Your task to perform on an android device: turn vacation reply on in the gmail app Image 0: 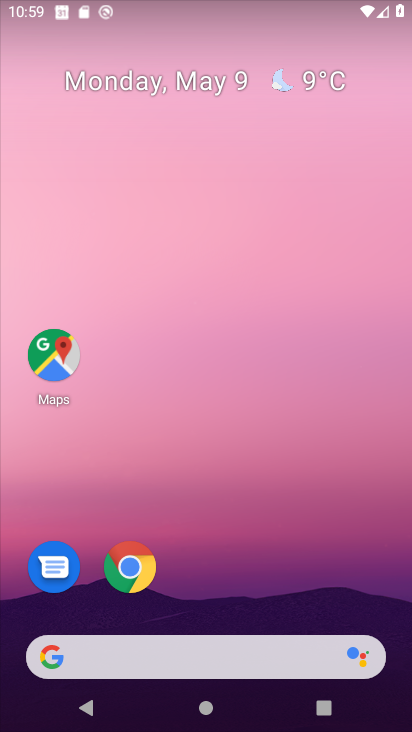
Step 0: drag from (222, 610) to (256, 6)
Your task to perform on an android device: turn vacation reply on in the gmail app Image 1: 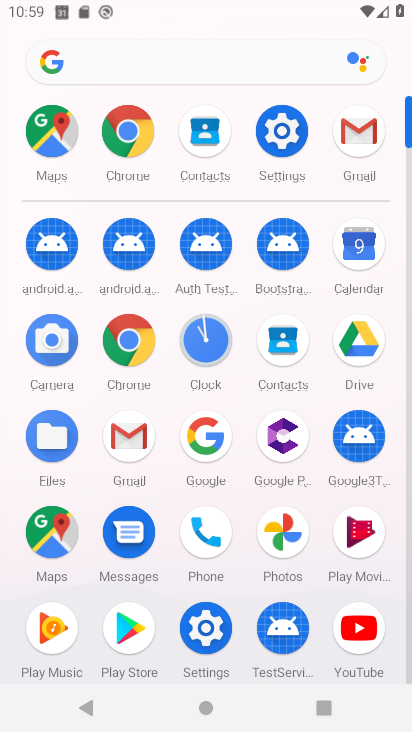
Step 1: click (356, 128)
Your task to perform on an android device: turn vacation reply on in the gmail app Image 2: 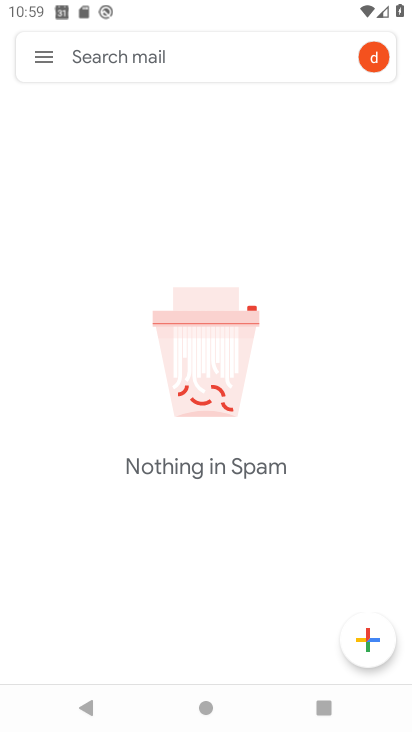
Step 2: click (39, 57)
Your task to perform on an android device: turn vacation reply on in the gmail app Image 3: 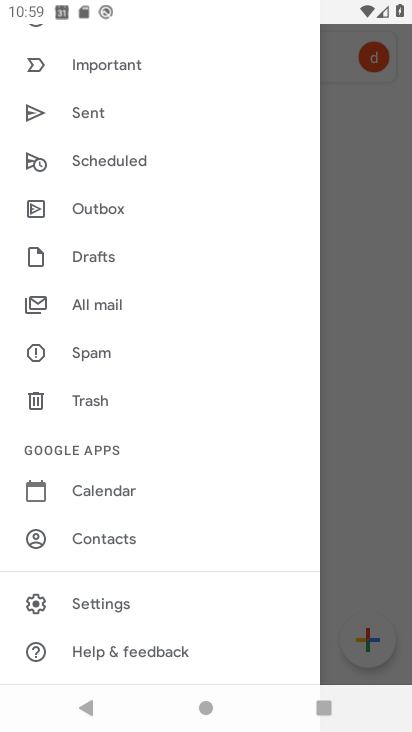
Step 3: click (140, 600)
Your task to perform on an android device: turn vacation reply on in the gmail app Image 4: 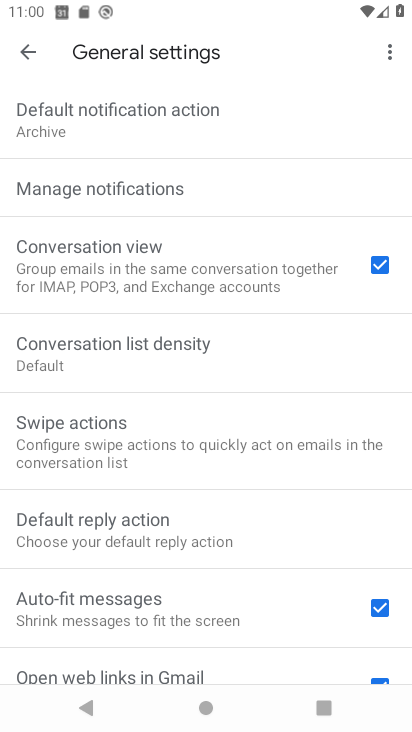
Step 4: click (23, 49)
Your task to perform on an android device: turn vacation reply on in the gmail app Image 5: 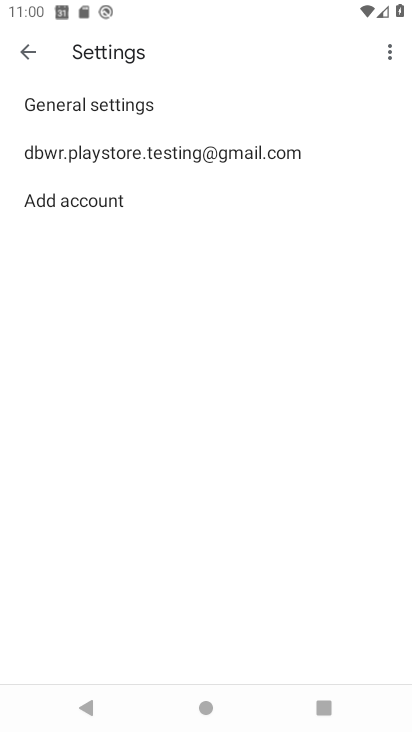
Step 5: click (163, 144)
Your task to perform on an android device: turn vacation reply on in the gmail app Image 6: 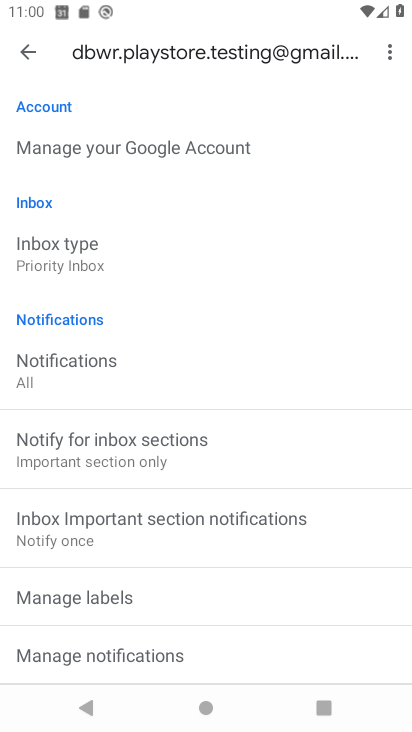
Step 6: drag from (187, 618) to (226, 143)
Your task to perform on an android device: turn vacation reply on in the gmail app Image 7: 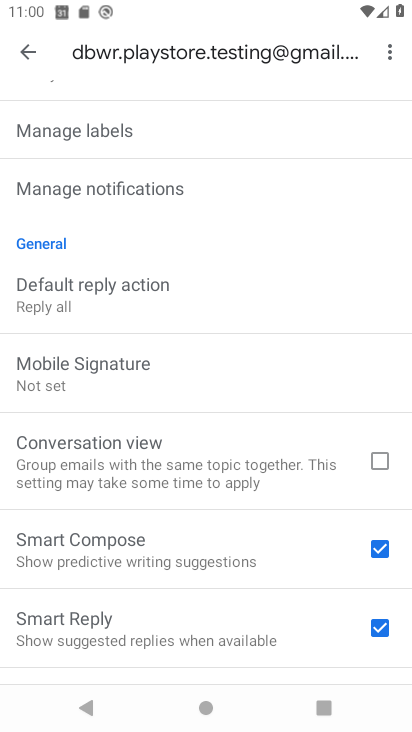
Step 7: drag from (149, 623) to (168, 325)
Your task to perform on an android device: turn vacation reply on in the gmail app Image 8: 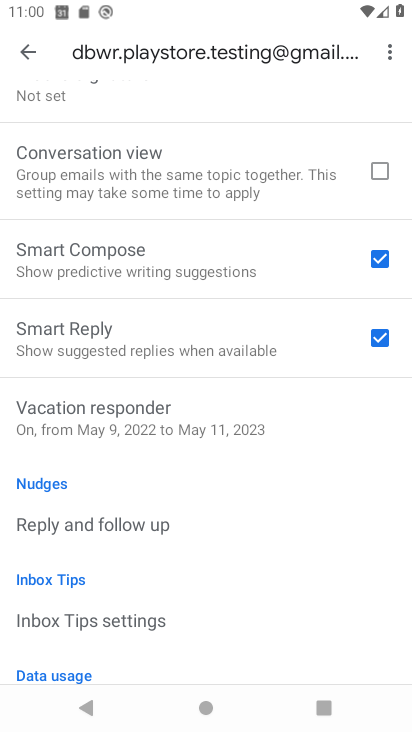
Step 8: click (180, 409)
Your task to perform on an android device: turn vacation reply on in the gmail app Image 9: 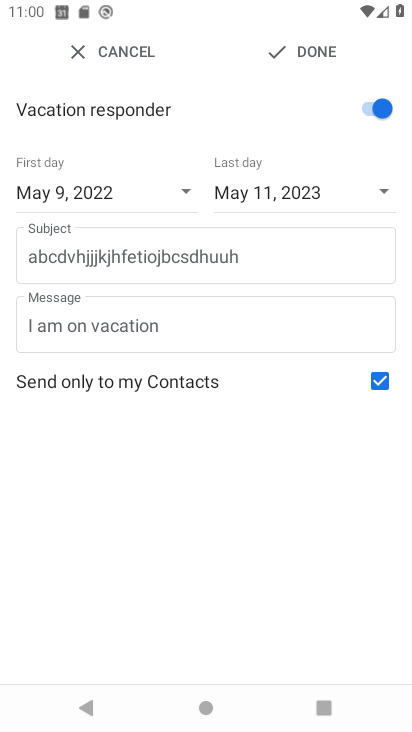
Step 9: task complete